Your task to perform on an android device: Open network settings Image 0: 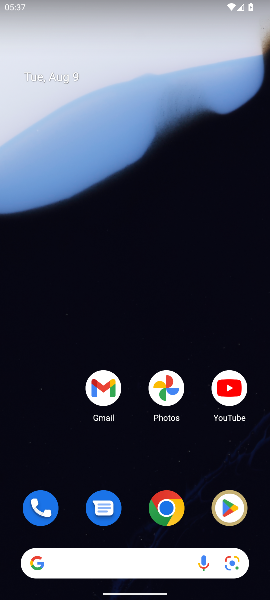
Step 0: drag from (149, 464) to (164, 52)
Your task to perform on an android device: Open network settings Image 1: 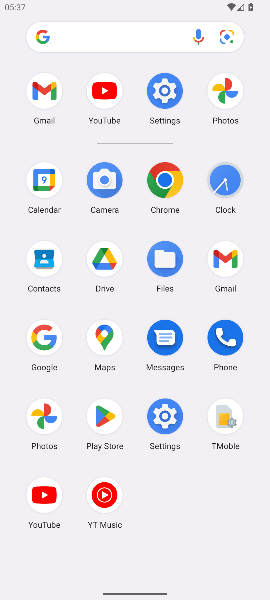
Step 1: click (164, 86)
Your task to perform on an android device: Open network settings Image 2: 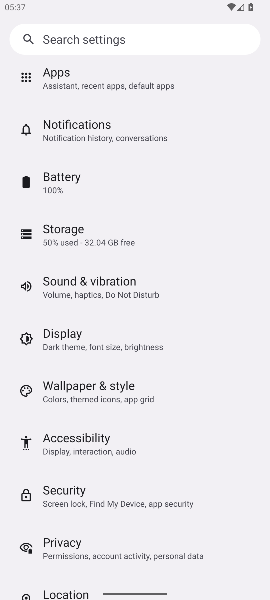
Step 2: drag from (107, 134) to (107, 344)
Your task to perform on an android device: Open network settings Image 3: 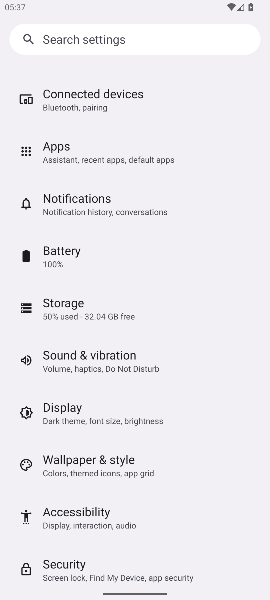
Step 3: drag from (131, 88) to (131, 295)
Your task to perform on an android device: Open network settings Image 4: 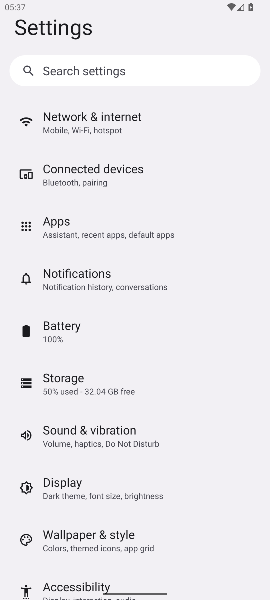
Step 4: click (122, 127)
Your task to perform on an android device: Open network settings Image 5: 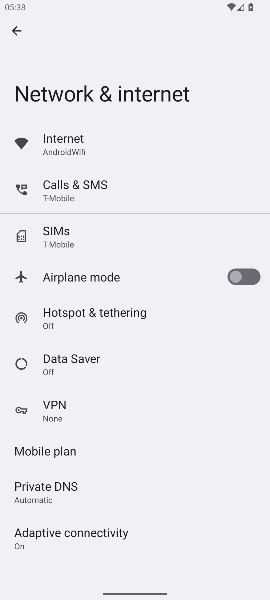
Step 5: task complete